Your task to perform on an android device: open a new tab in the chrome app Image 0: 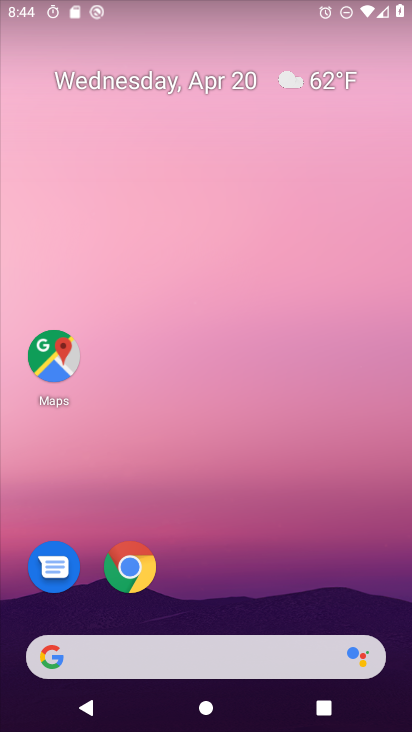
Step 0: click (150, 579)
Your task to perform on an android device: open a new tab in the chrome app Image 1: 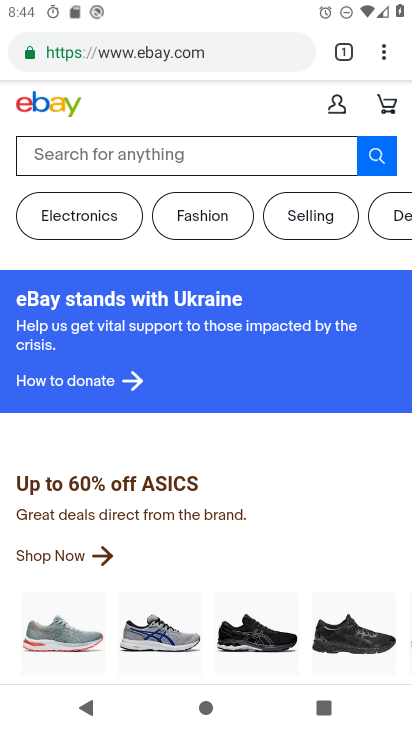
Step 1: click (386, 57)
Your task to perform on an android device: open a new tab in the chrome app Image 2: 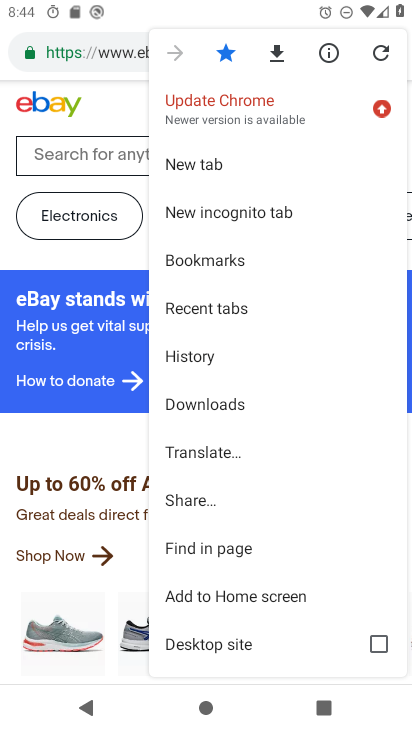
Step 2: click (205, 169)
Your task to perform on an android device: open a new tab in the chrome app Image 3: 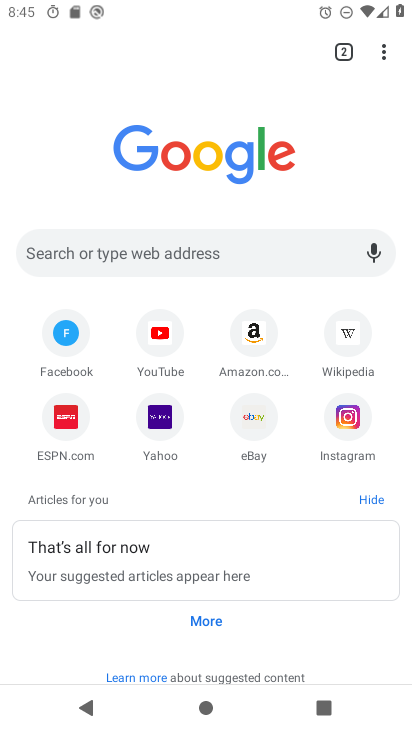
Step 3: task complete